Your task to perform on an android device: change notification settings in the gmail app Image 0: 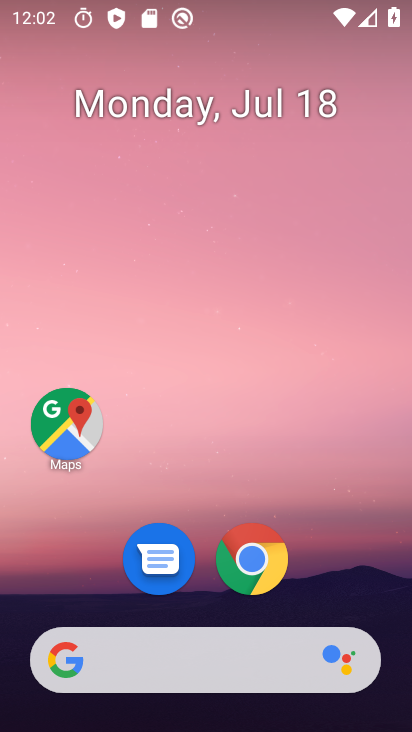
Step 0: drag from (189, 535) to (238, 75)
Your task to perform on an android device: change notification settings in the gmail app Image 1: 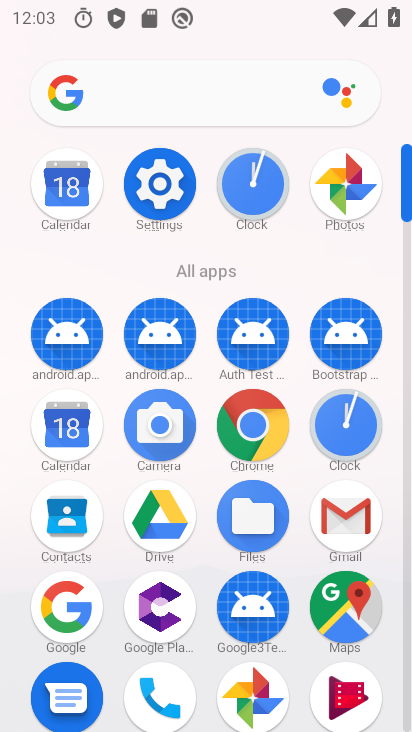
Step 1: click (335, 536)
Your task to perform on an android device: change notification settings in the gmail app Image 2: 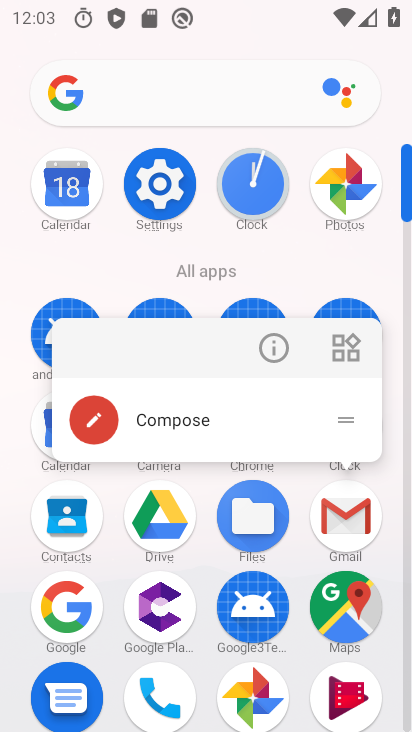
Step 2: click (276, 352)
Your task to perform on an android device: change notification settings in the gmail app Image 3: 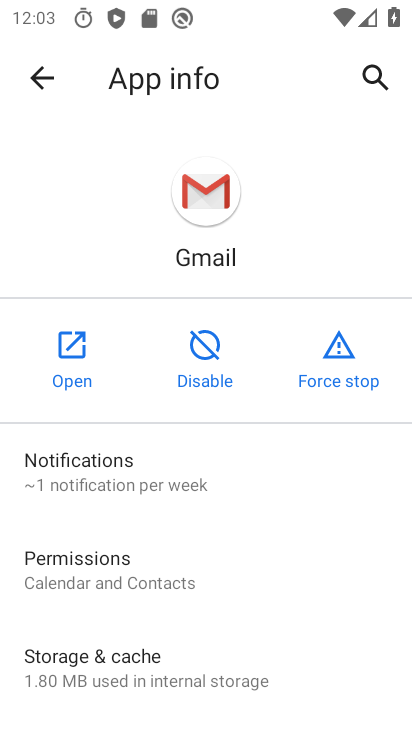
Step 3: click (152, 450)
Your task to perform on an android device: change notification settings in the gmail app Image 4: 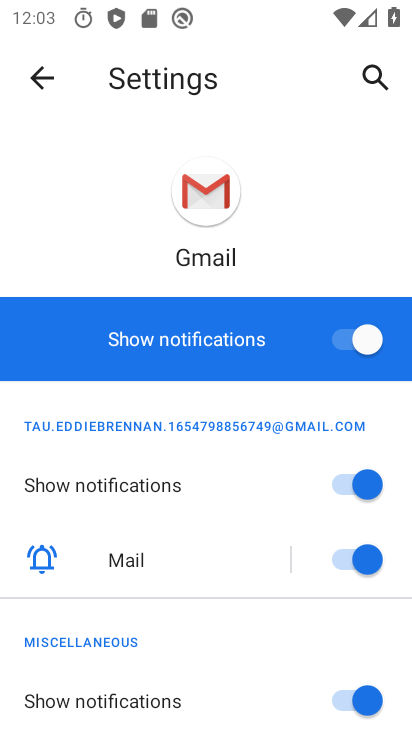
Step 4: click (353, 694)
Your task to perform on an android device: change notification settings in the gmail app Image 5: 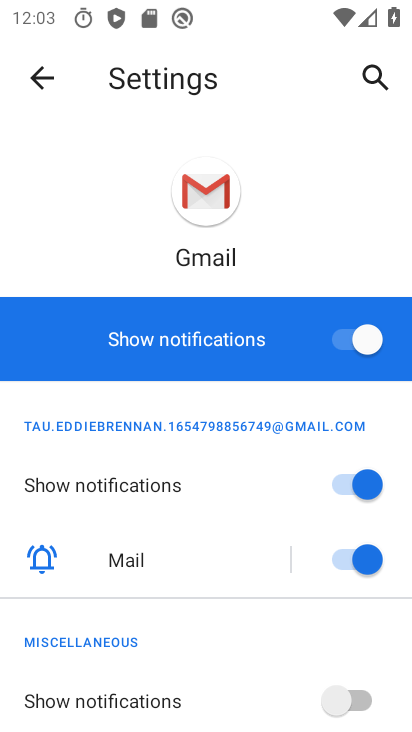
Step 5: task complete